Your task to perform on an android device: Clear the shopping cart on amazon.com. Add "energizer triple a" to the cart on amazon.com Image 0: 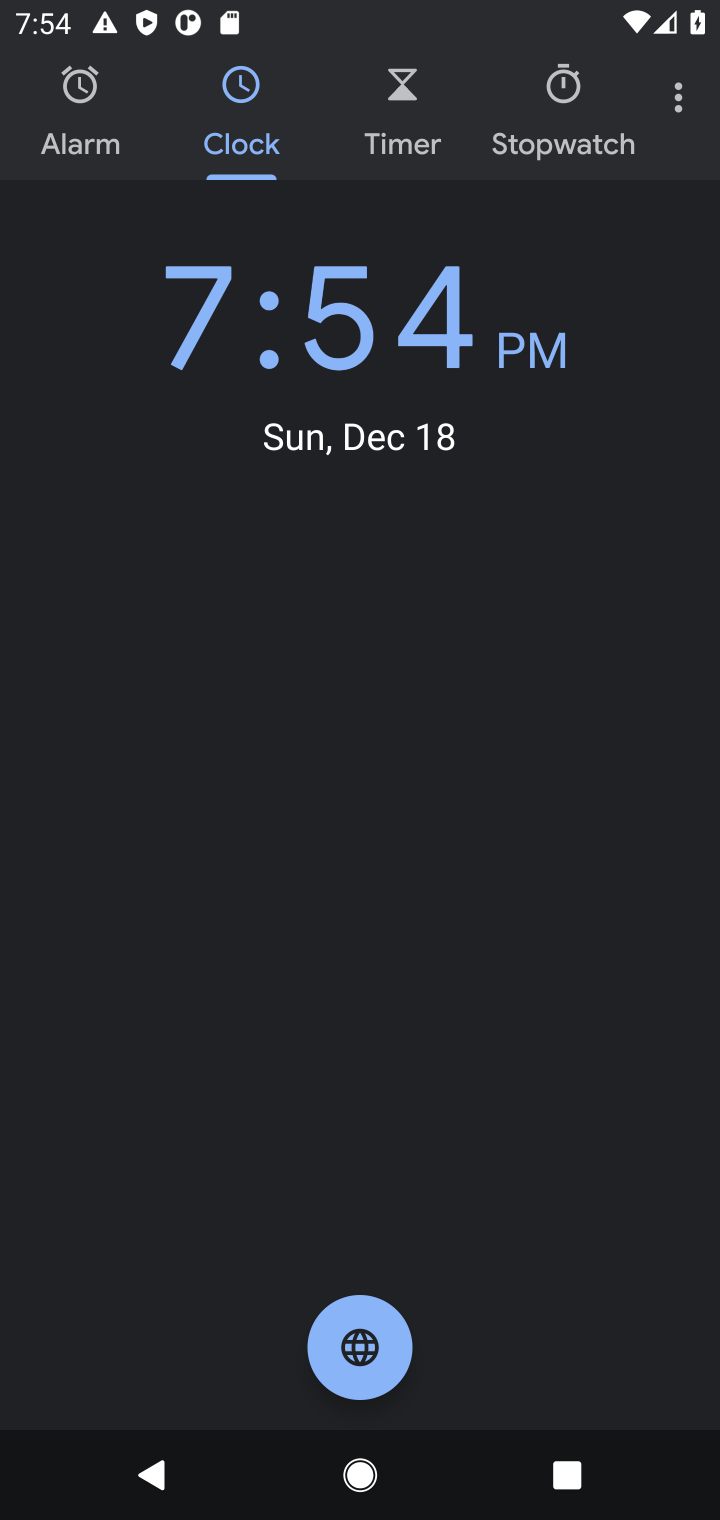
Step 0: press home button
Your task to perform on an android device: Clear the shopping cart on amazon.com. Add "energizer triple a" to the cart on amazon.com Image 1: 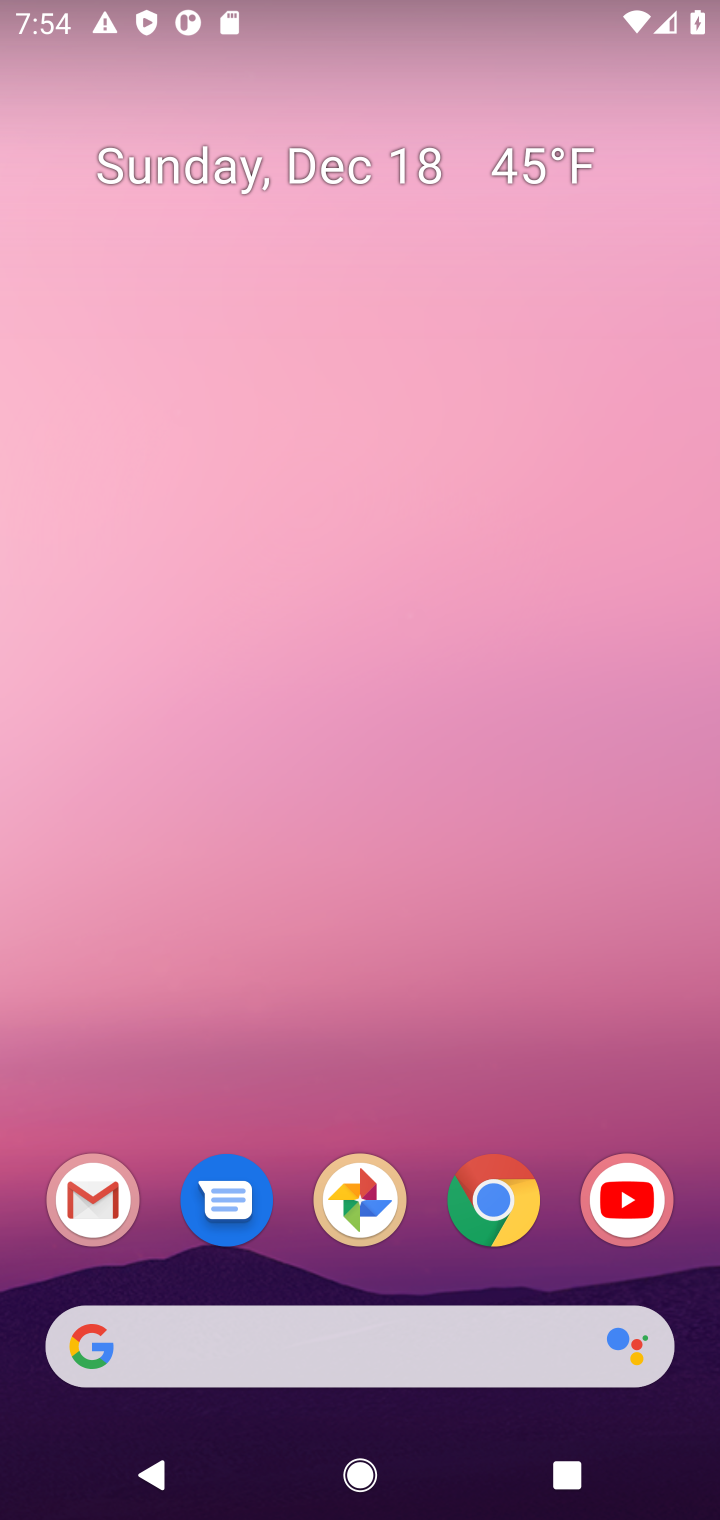
Step 1: click (492, 1222)
Your task to perform on an android device: Clear the shopping cart on amazon.com. Add "energizer triple a" to the cart on amazon.com Image 2: 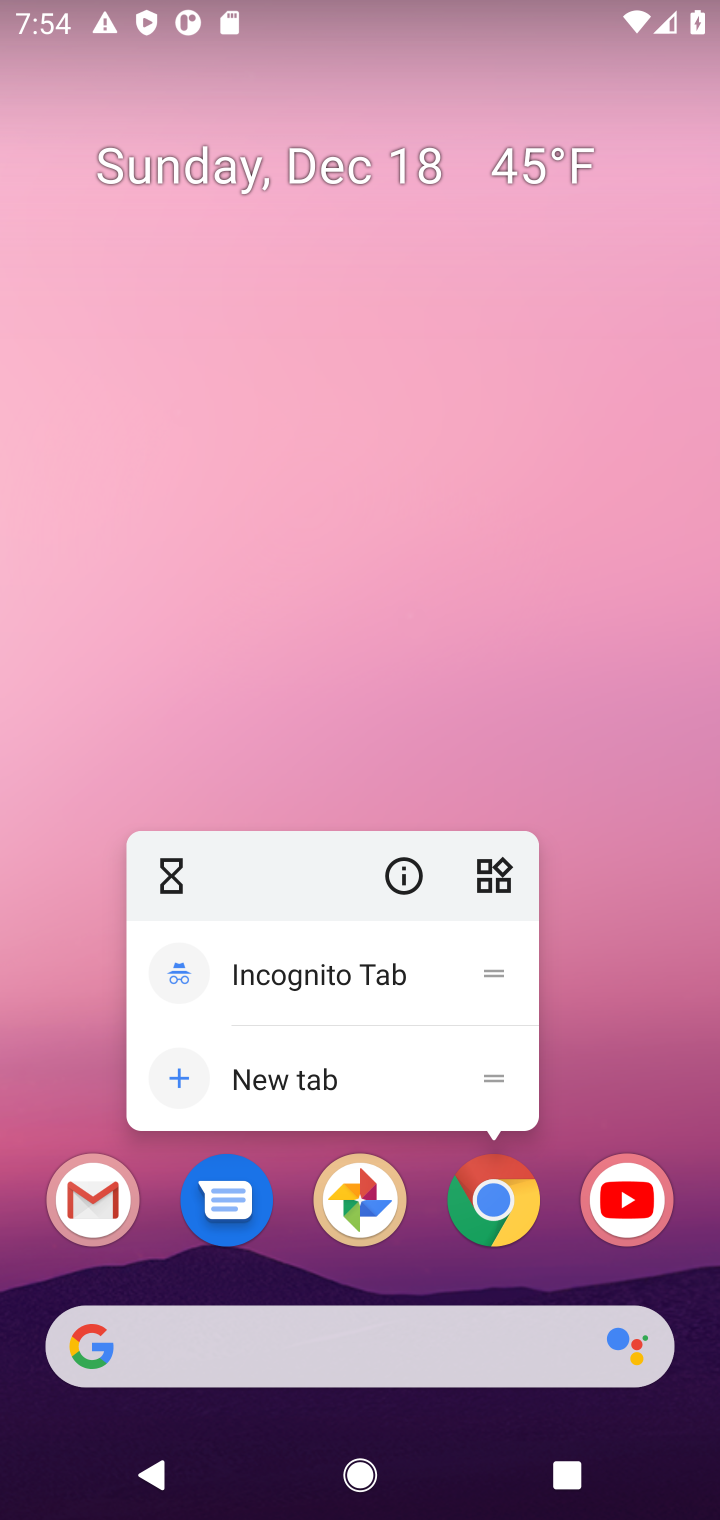
Step 2: click (493, 1205)
Your task to perform on an android device: Clear the shopping cart on amazon.com. Add "energizer triple a" to the cart on amazon.com Image 3: 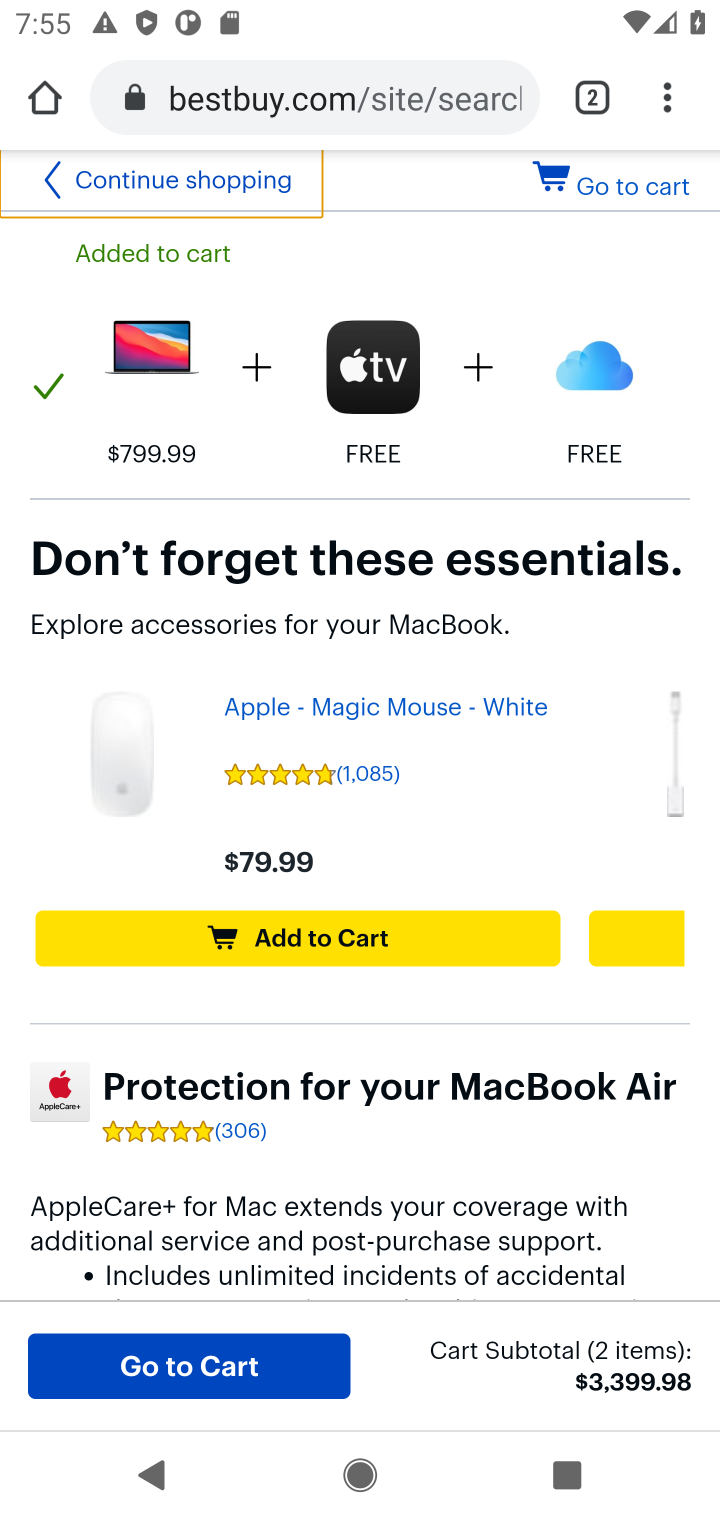
Step 3: click (323, 102)
Your task to perform on an android device: Clear the shopping cart on amazon.com. Add "energizer triple a" to the cart on amazon.com Image 4: 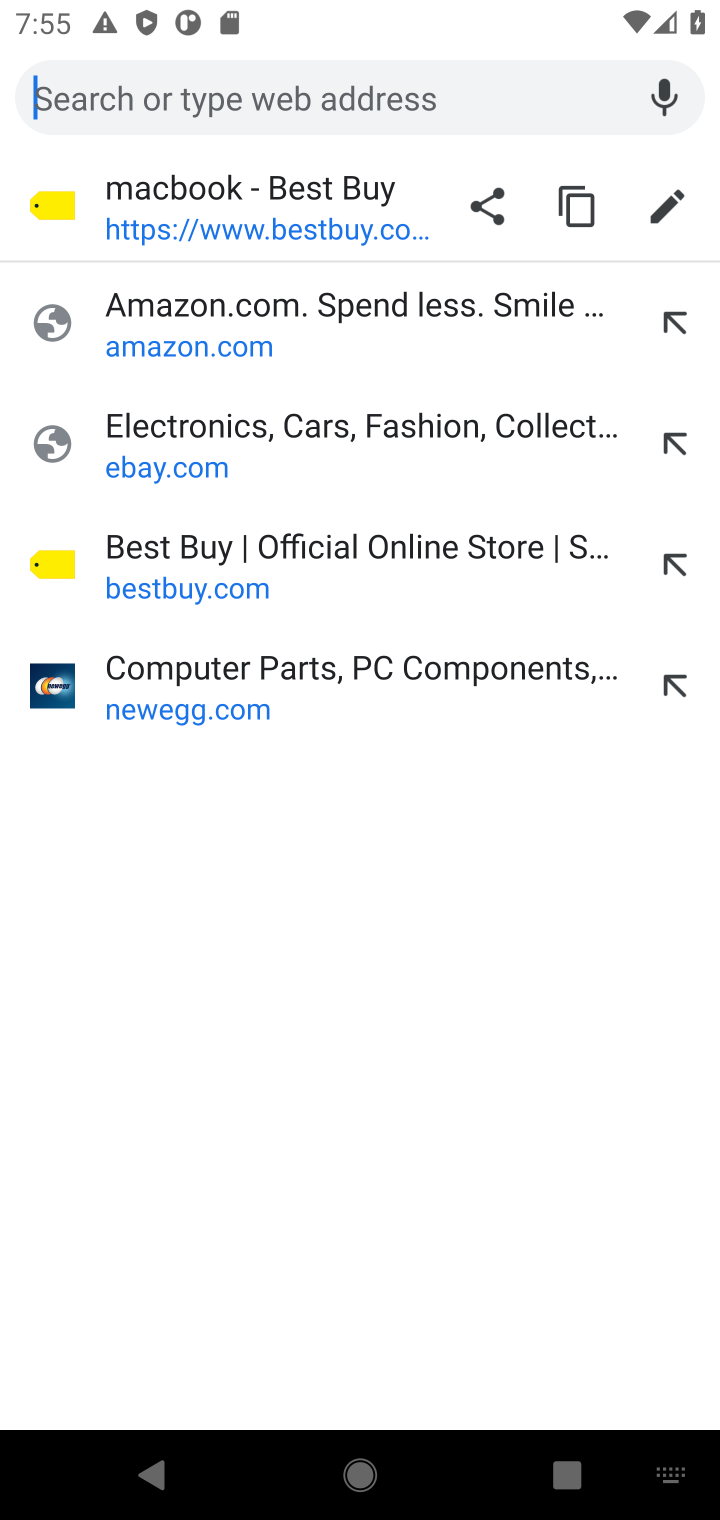
Step 4: click (180, 347)
Your task to perform on an android device: Clear the shopping cart on amazon.com. Add "energizer triple a" to the cart on amazon.com Image 5: 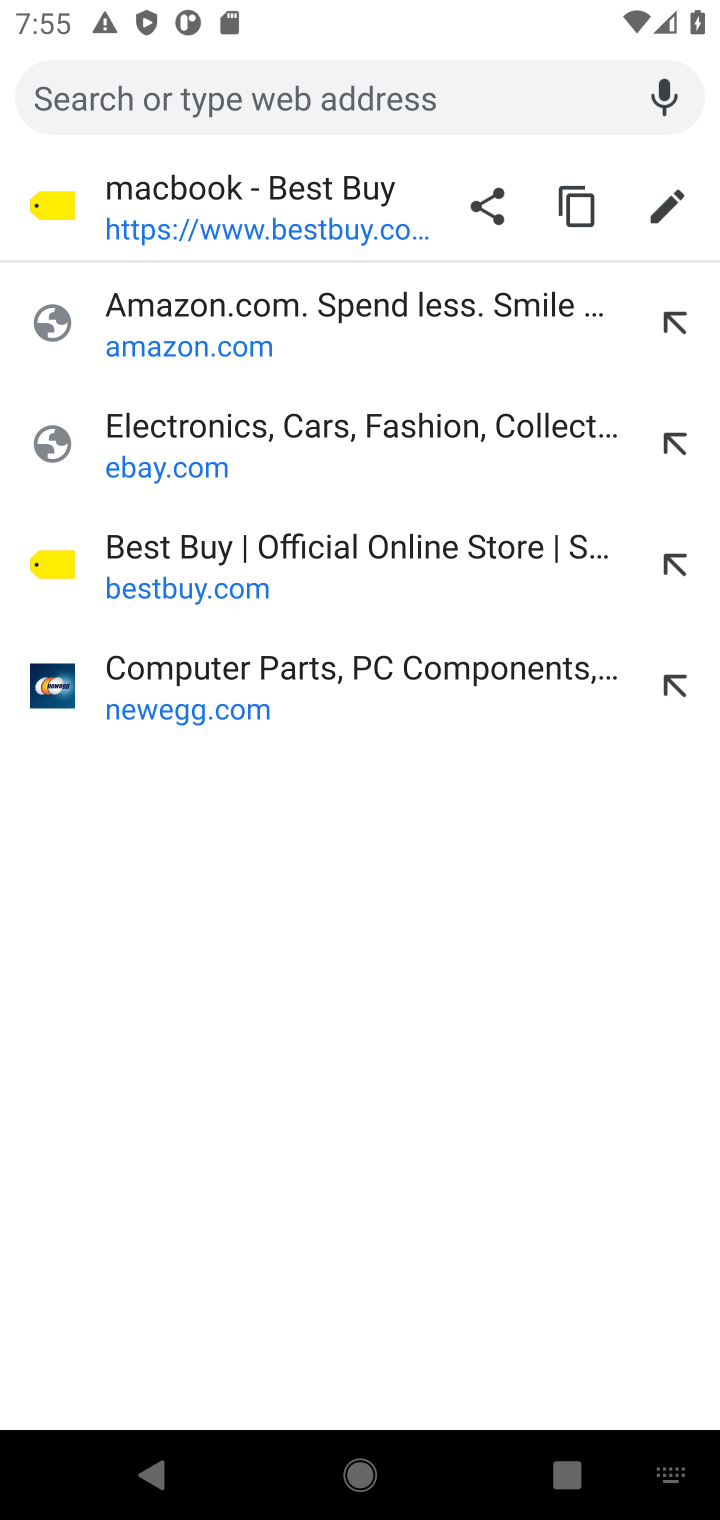
Step 5: click (180, 347)
Your task to perform on an android device: Clear the shopping cart on amazon.com. Add "energizer triple a" to the cart on amazon.com Image 6: 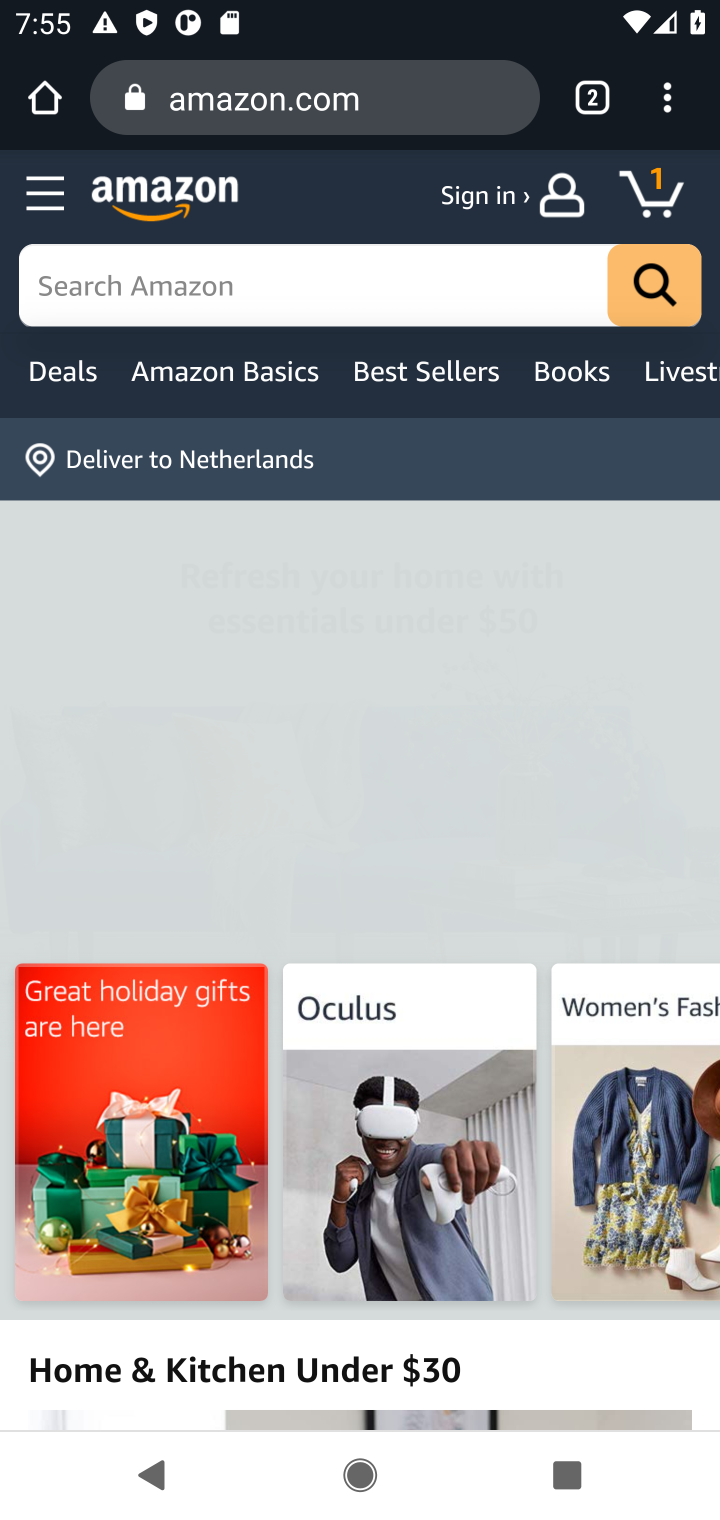
Step 6: click (654, 194)
Your task to perform on an android device: Clear the shopping cart on amazon.com. Add "energizer triple a" to the cart on amazon.com Image 7: 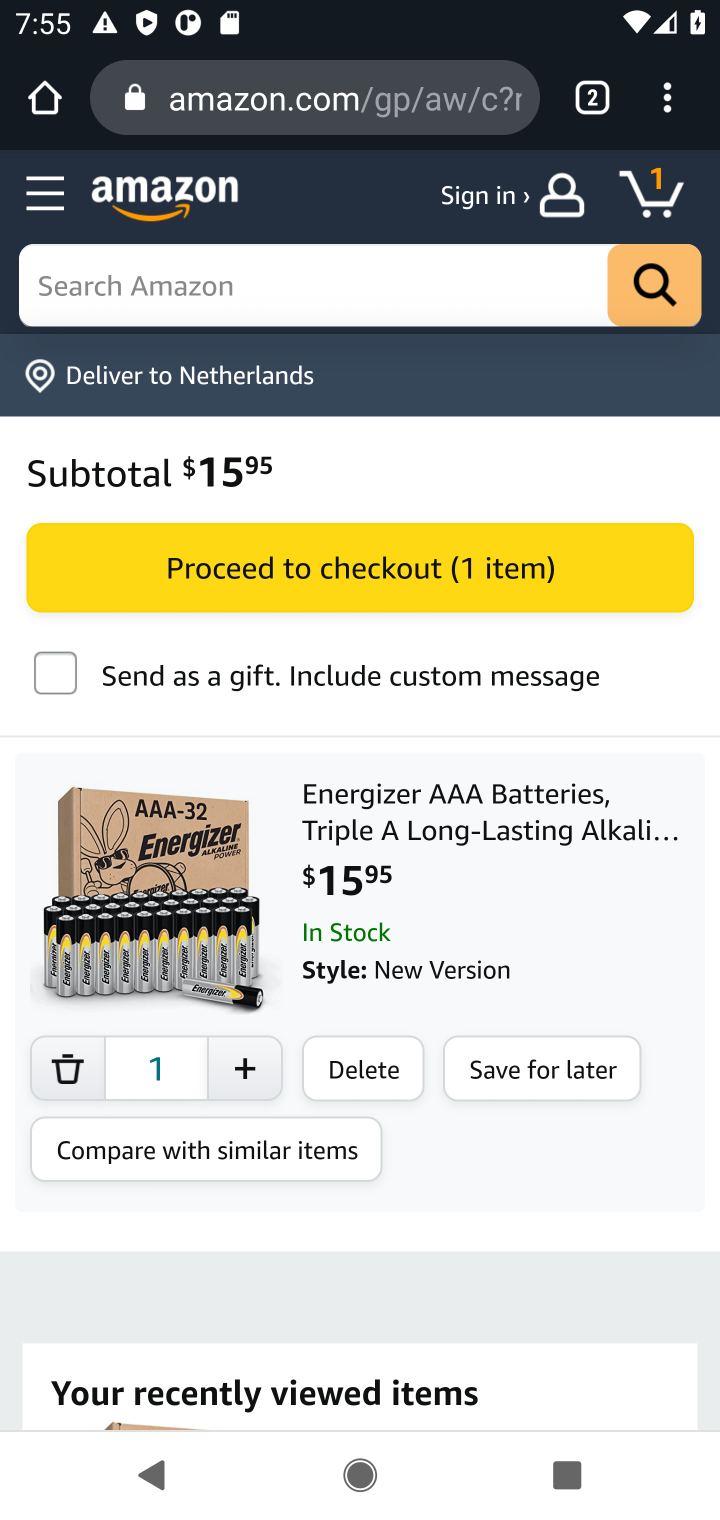
Step 7: click (369, 1062)
Your task to perform on an android device: Clear the shopping cart on amazon.com. Add "energizer triple a" to the cart on amazon.com Image 8: 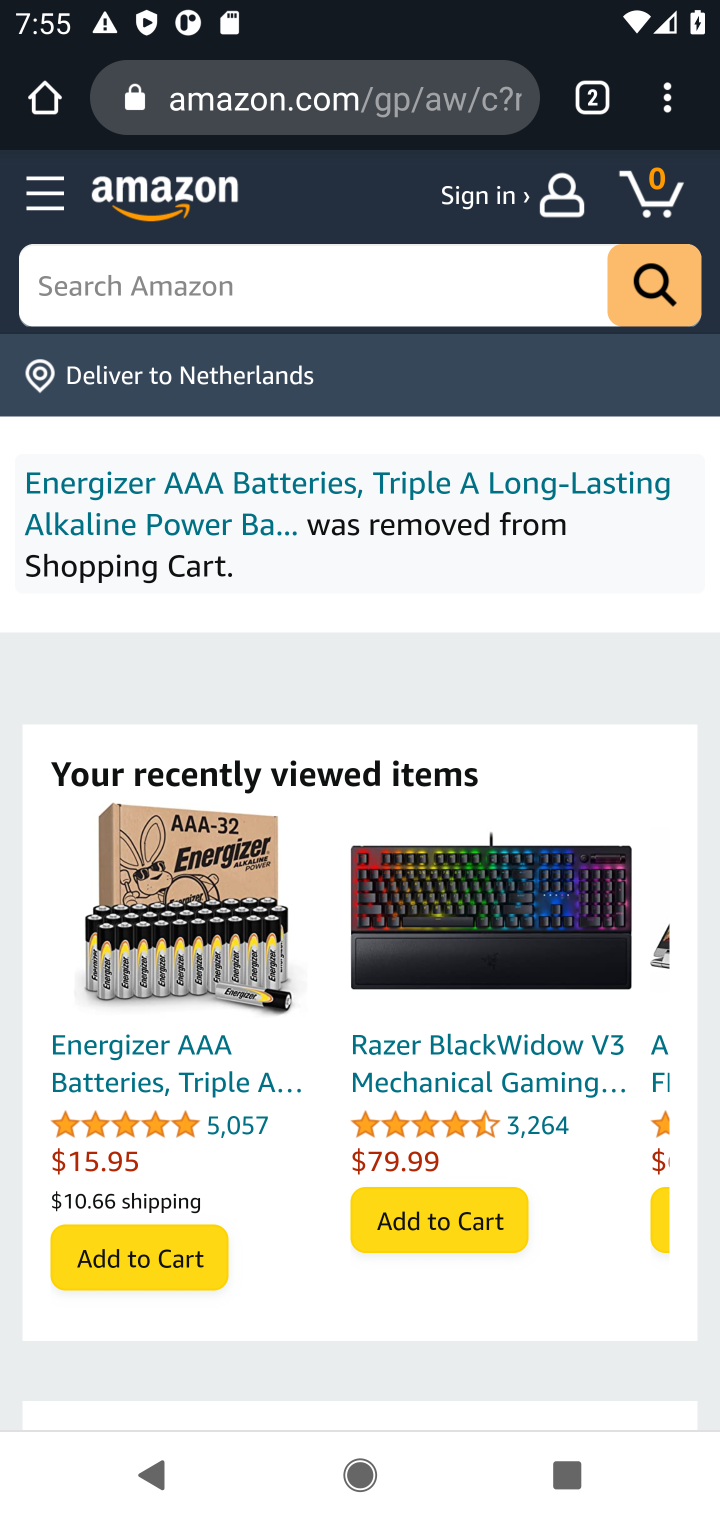
Step 8: click (162, 308)
Your task to perform on an android device: Clear the shopping cart on amazon.com. Add "energizer triple a" to the cart on amazon.com Image 9: 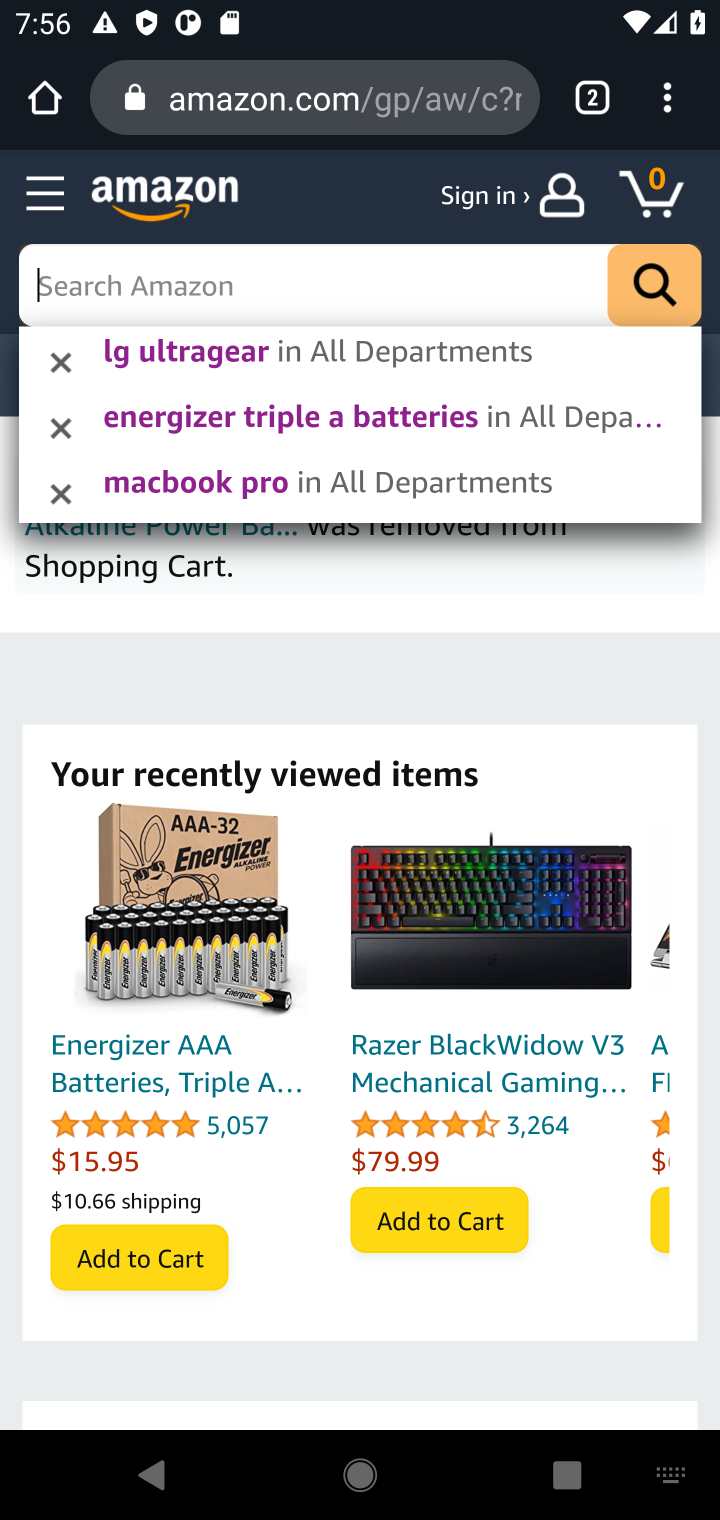
Step 9: type "energizer triple a"
Your task to perform on an android device: Clear the shopping cart on amazon.com. Add "energizer triple a" to the cart on amazon.com Image 10: 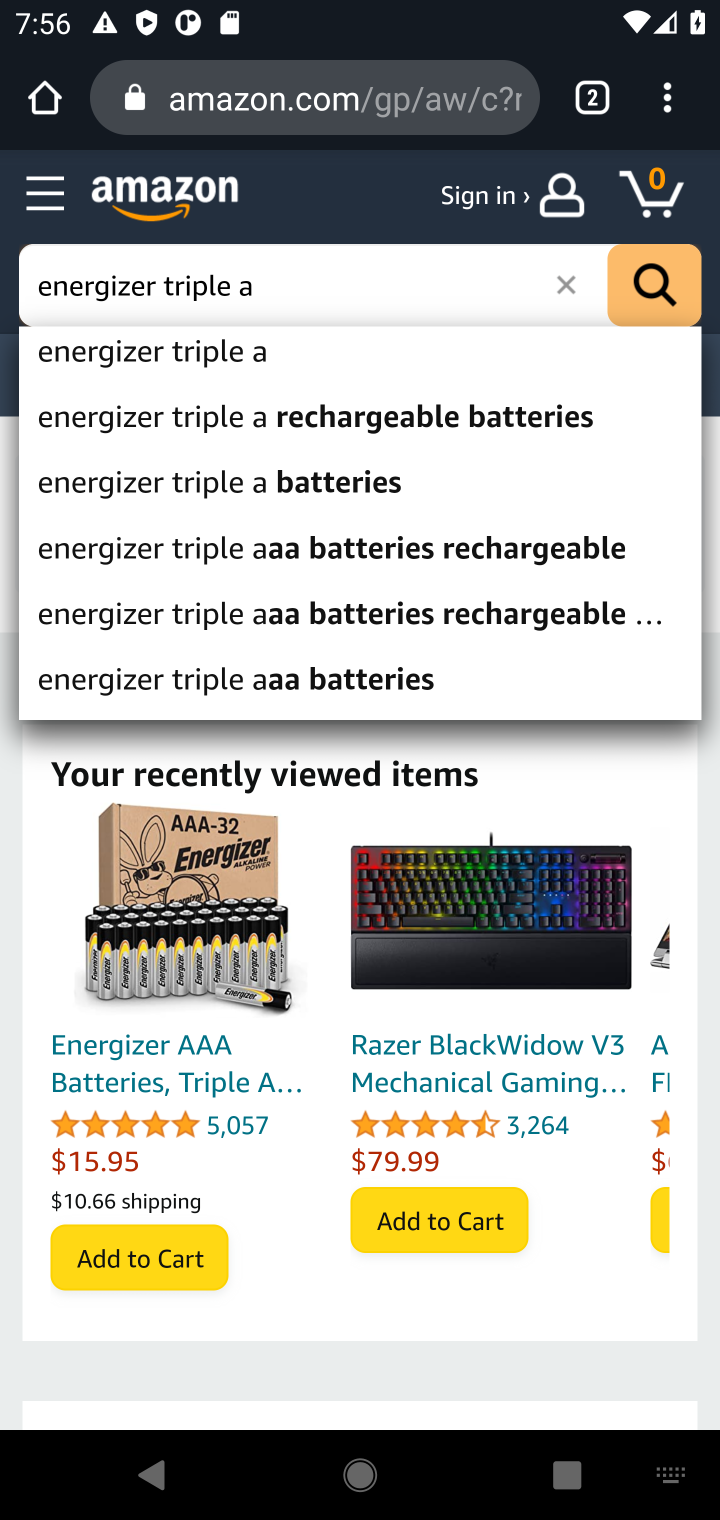
Step 10: click (193, 350)
Your task to perform on an android device: Clear the shopping cart on amazon.com. Add "energizer triple a" to the cart on amazon.com Image 11: 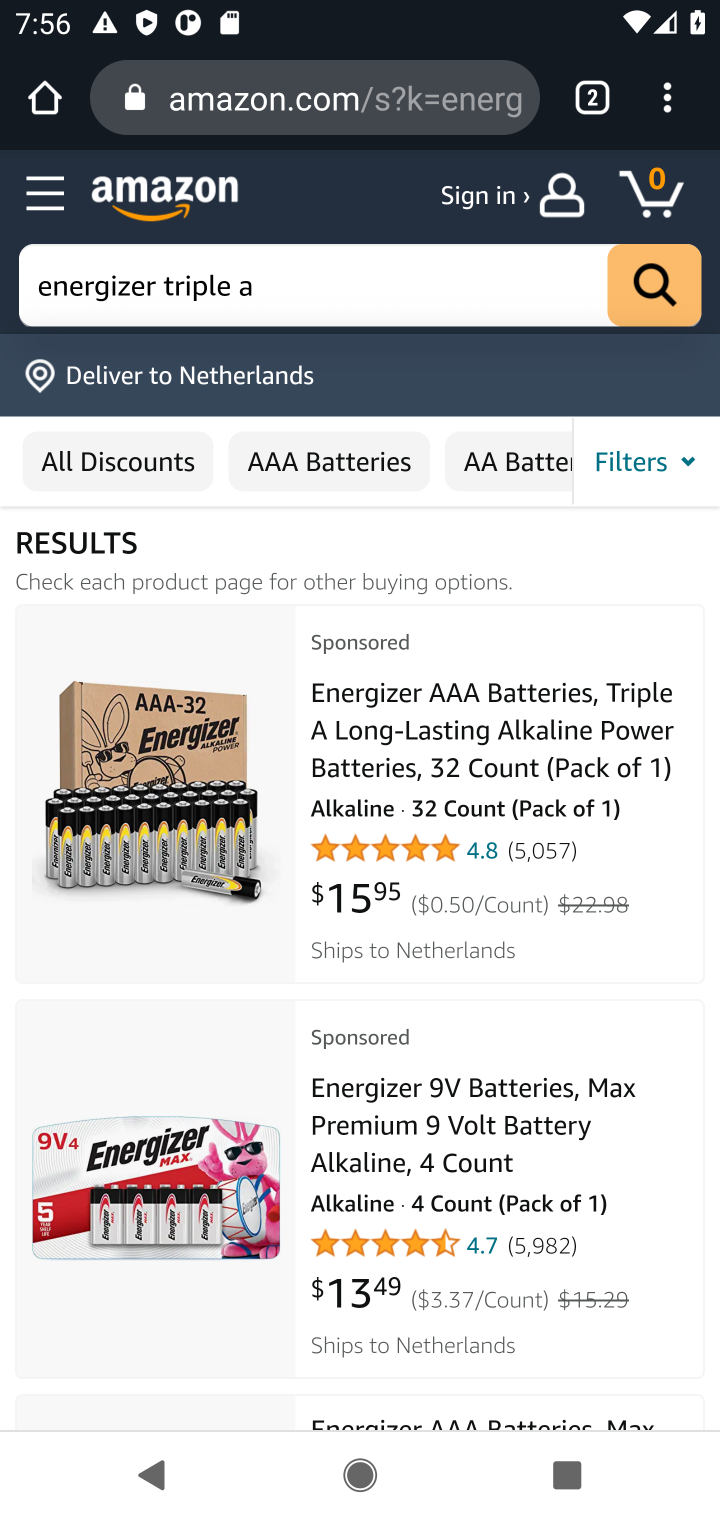
Step 11: click (406, 787)
Your task to perform on an android device: Clear the shopping cart on amazon.com. Add "energizer triple a" to the cart on amazon.com Image 12: 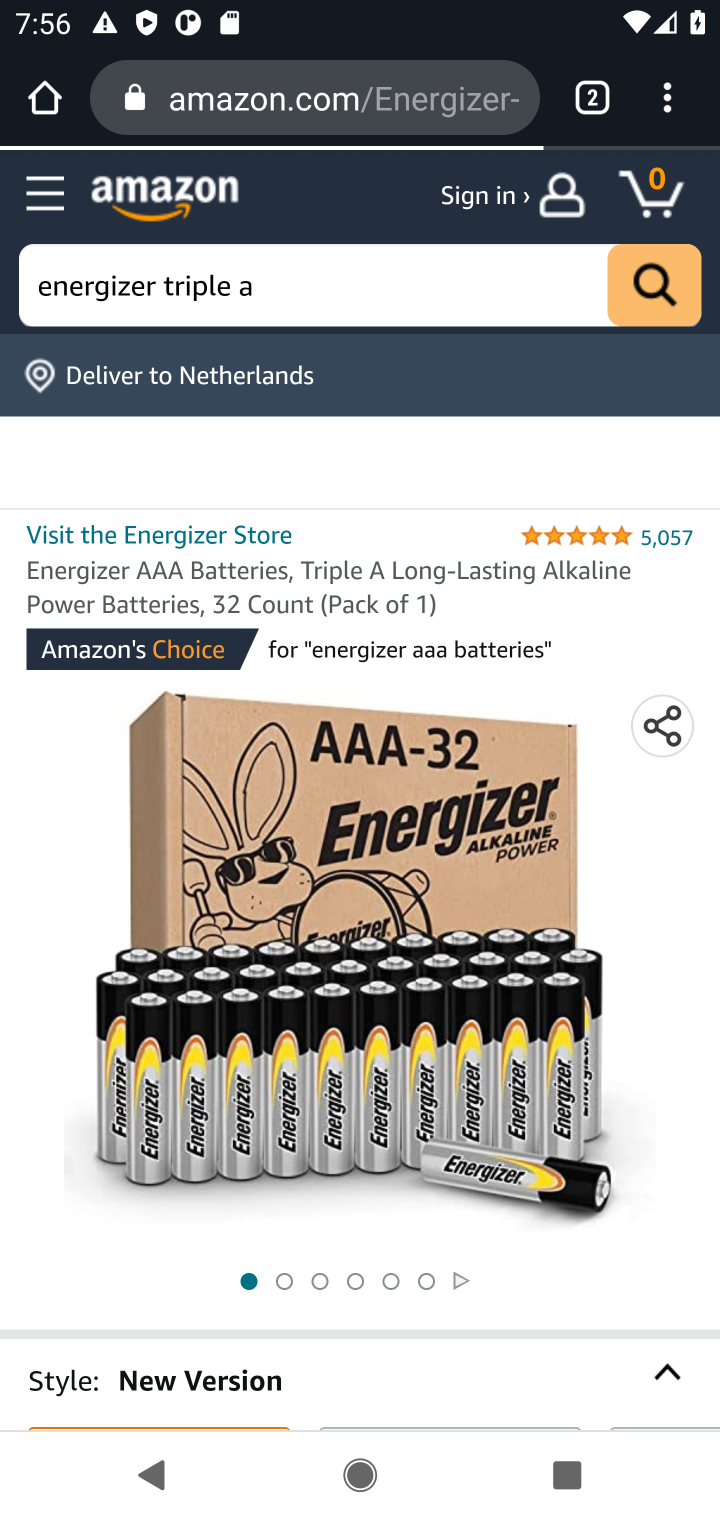
Step 12: drag from (307, 1114) to (326, 438)
Your task to perform on an android device: Clear the shopping cart on amazon.com. Add "energizer triple a" to the cart on amazon.com Image 13: 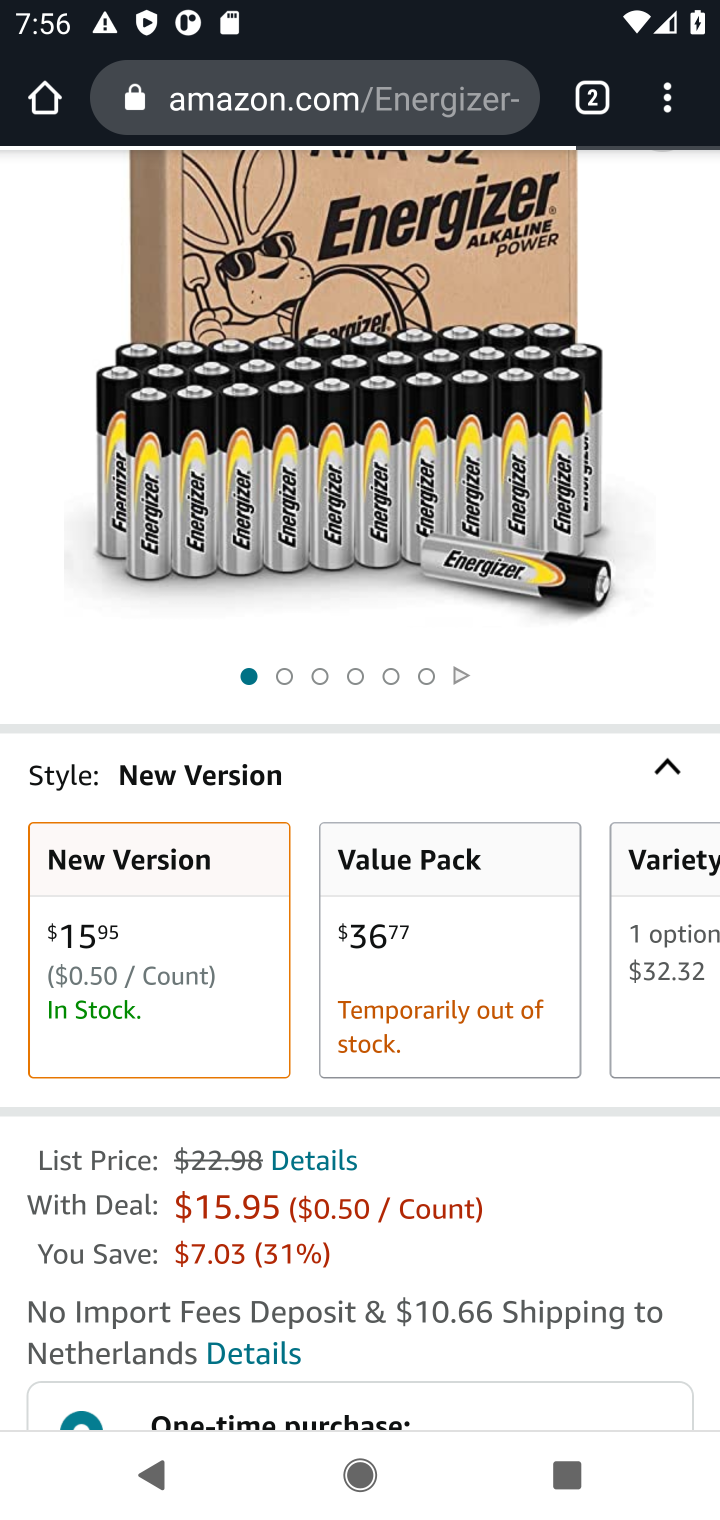
Step 13: drag from (274, 1027) to (276, 474)
Your task to perform on an android device: Clear the shopping cart on amazon.com. Add "energizer triple a" to the cart on amazon.com Image 14: 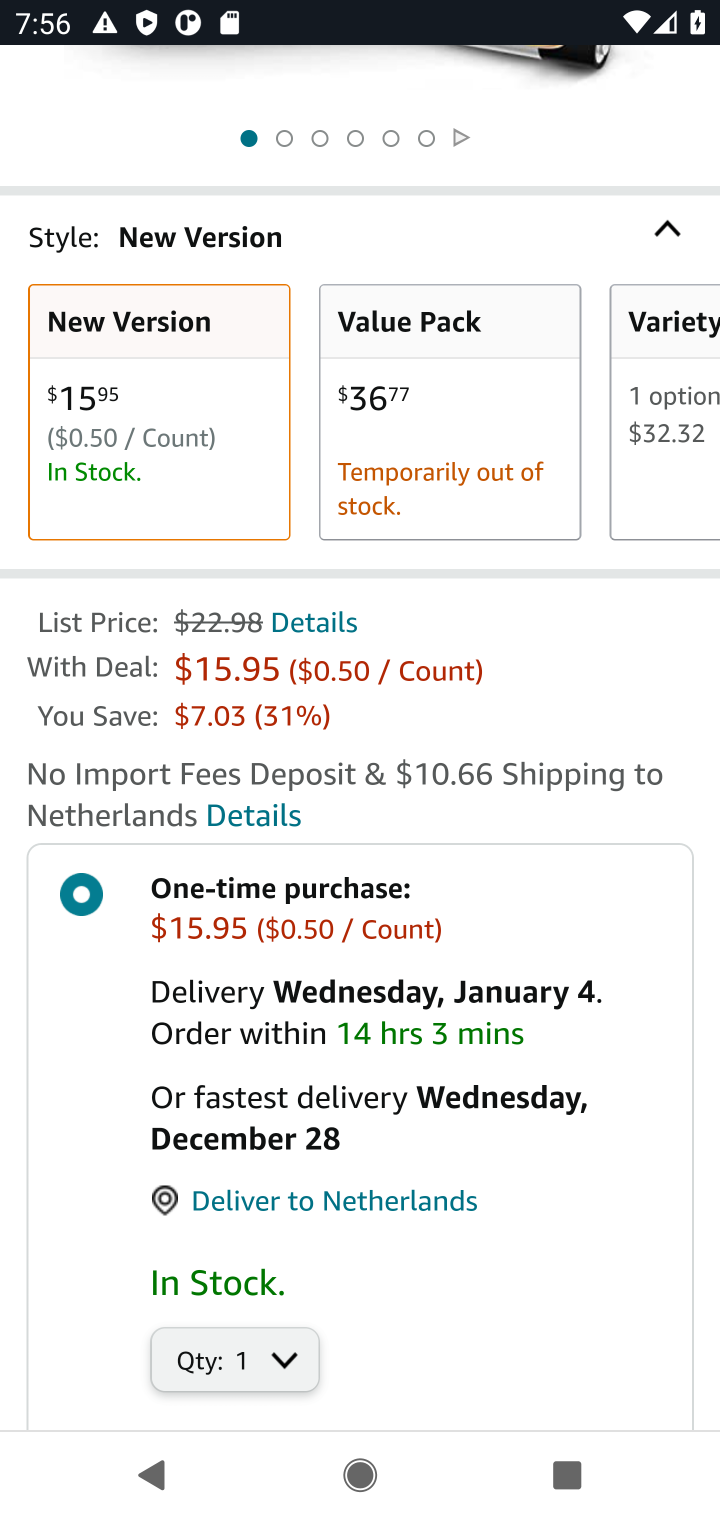
Step 14: drag from (252, 1053) to (251, 359)
Your task to perform on an android device: Clear the shopping cart on amazon.com. Add "energizer triple a" to the cart on amazon.com Image 15: 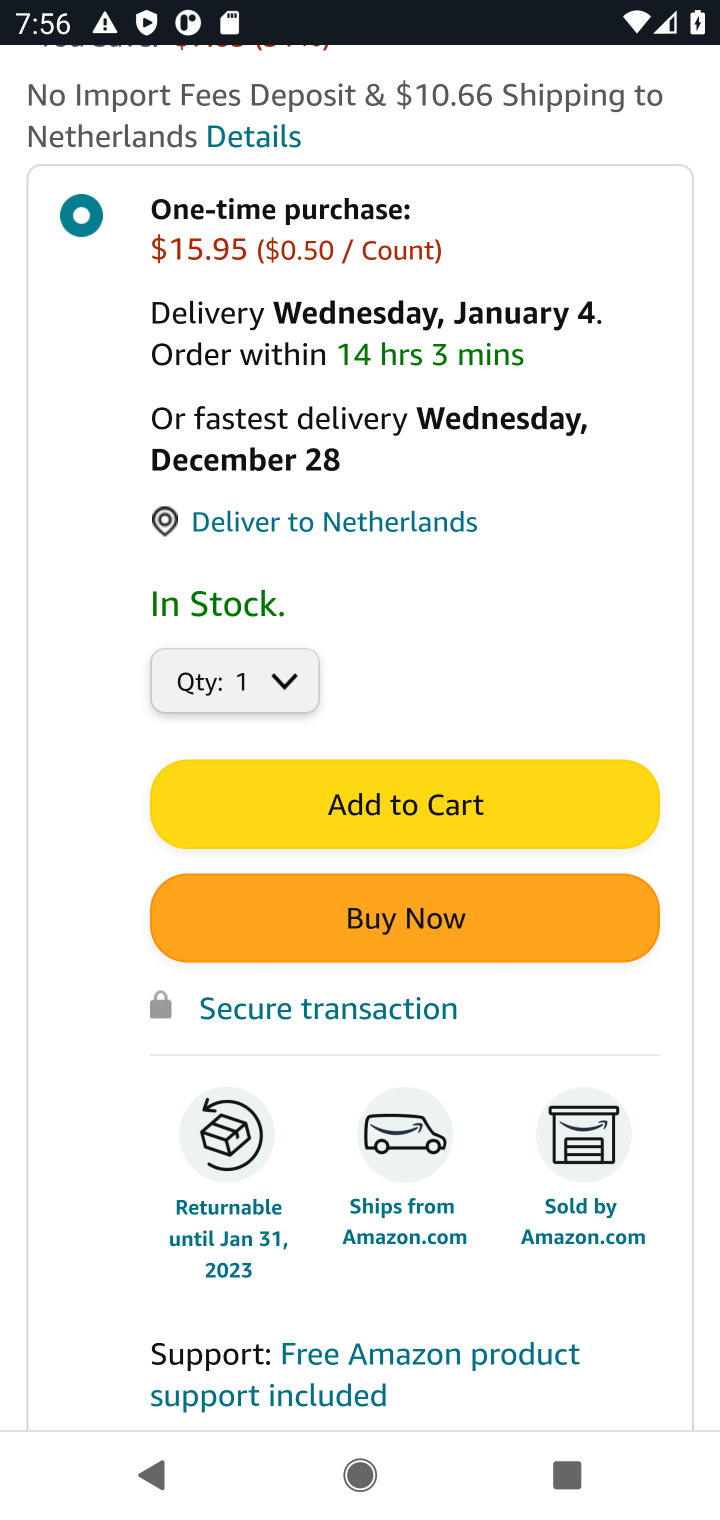
Step 15: click (370, 806)
Your task to perform on an android device: Clear the shopping cart on amazon.com. Add "energizer triple a" to the cart on amazon.com Image 16: 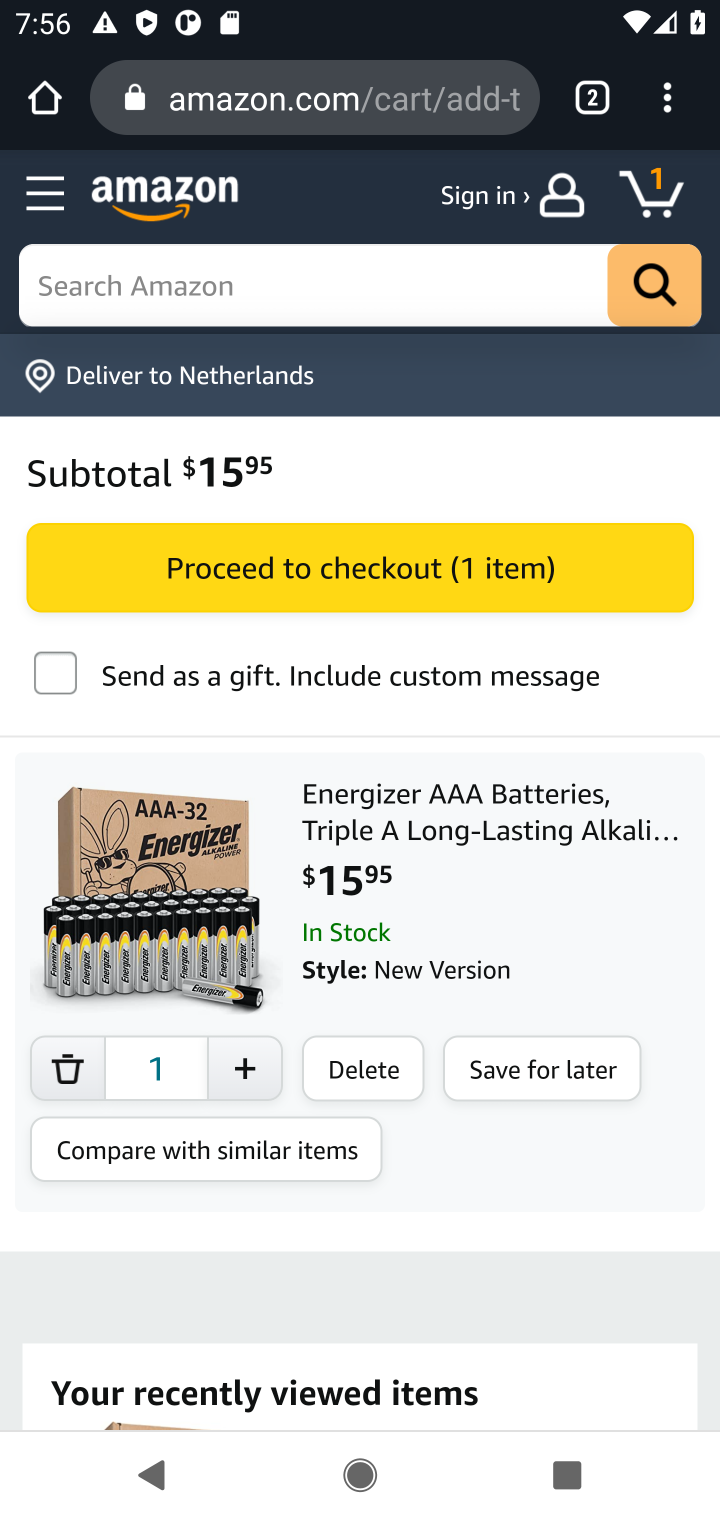
Step 16: task complete